Your task to perform on an android device: check storage Image 0: 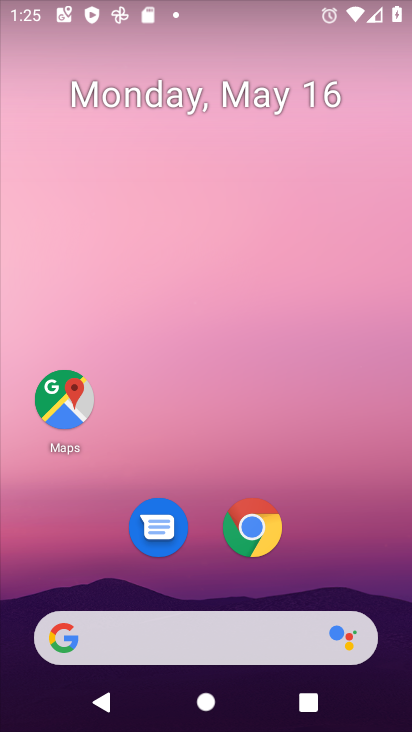
Step 0: drag from (385, 596) to (355, 154)
Your task to perform on an android device: check storage Image 1: 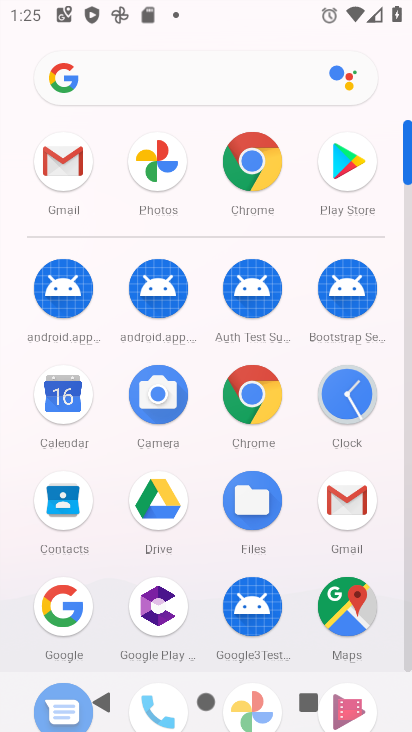
Step 1: click (407, 555)
Your task to perform on an android device: check storage Image 2: 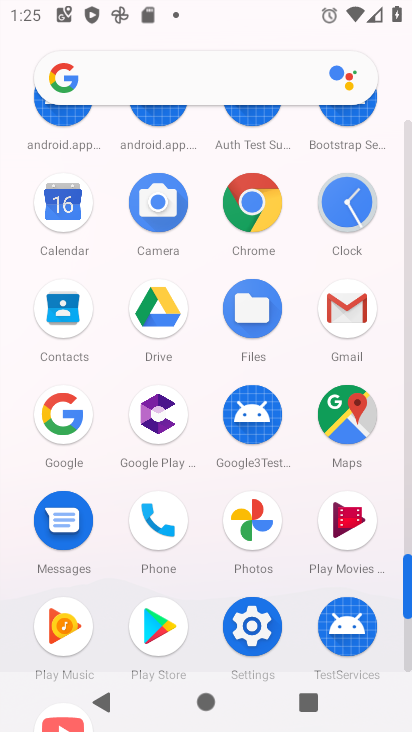
Step 2: click (240, 626)
Your task to perform on an android device: check storage Image 3: 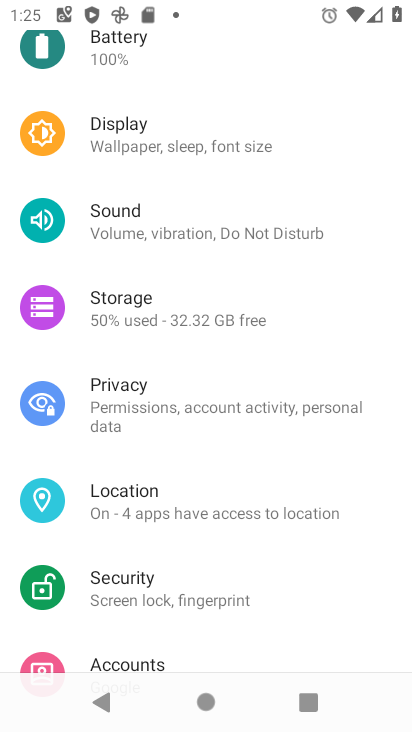
Step 3: click (227, 305)
Your task to perform on an android device: check storage Image 4: 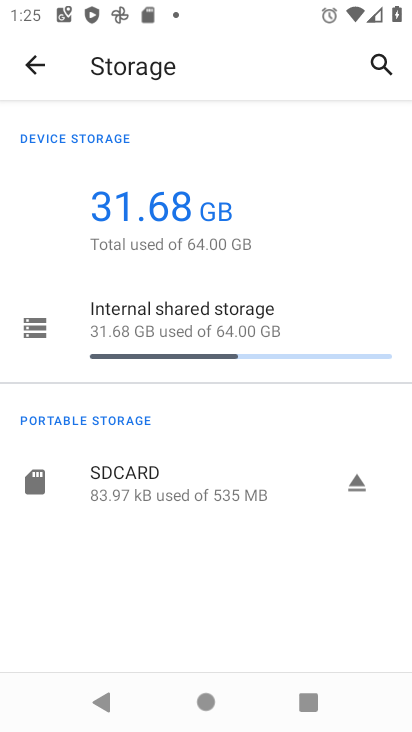
Step 4: task complete